Your task to perform on an android device: Open the calendar app, open the side menu, and click the "Day" option Image 0: 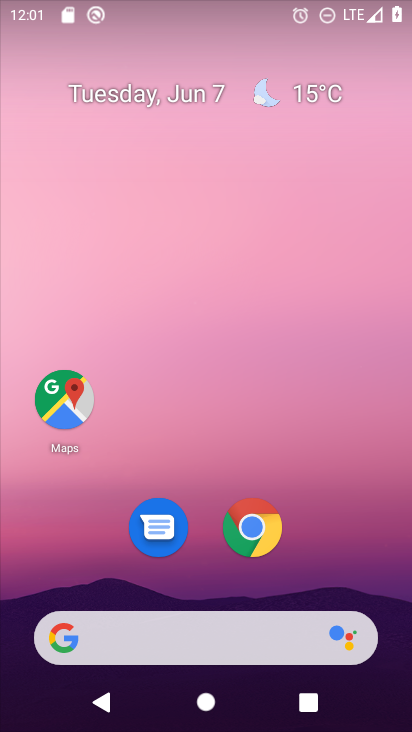
Step 0: drag from (376, 561) to (357, 132)
Your task to perform on an android device: Open the calendar app, open the side menu, and click the "Day" option Image 1: 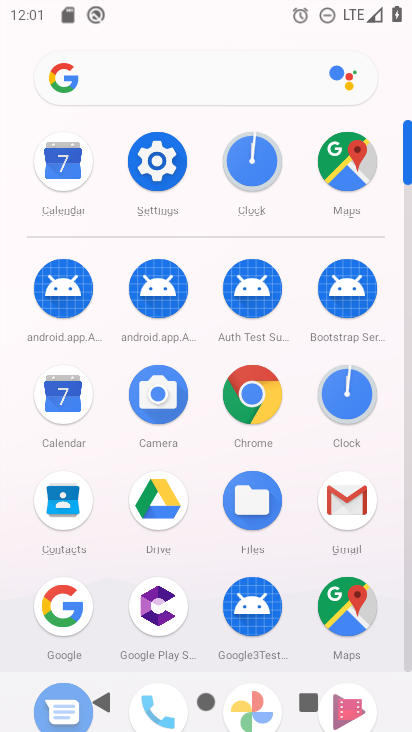
Step 1: click (73, 402)
Your task to perform on an android device: Open the calendar app, open the side menu, and click the "Day" option Image 2: 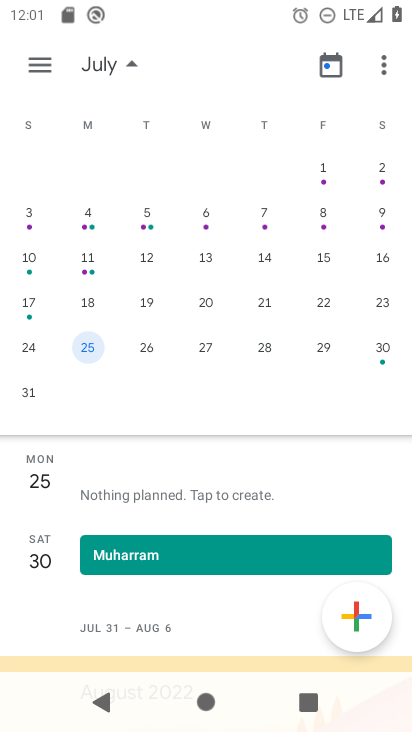
Step 2: click (51, 63)
Your task to perform on an android device: Open the calendar app, open the side menu, and click the "Day" option Image 3: 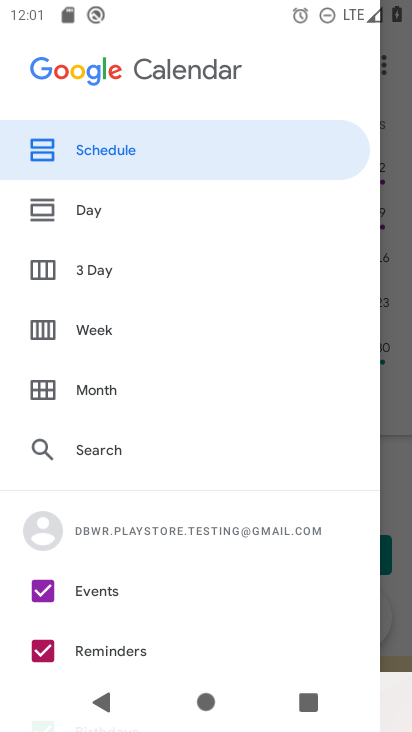
Step 3: click (121, 208)
Your task to perform on an android device: Open the calendar app, open the side menu, and click the "Day" option Image 4: 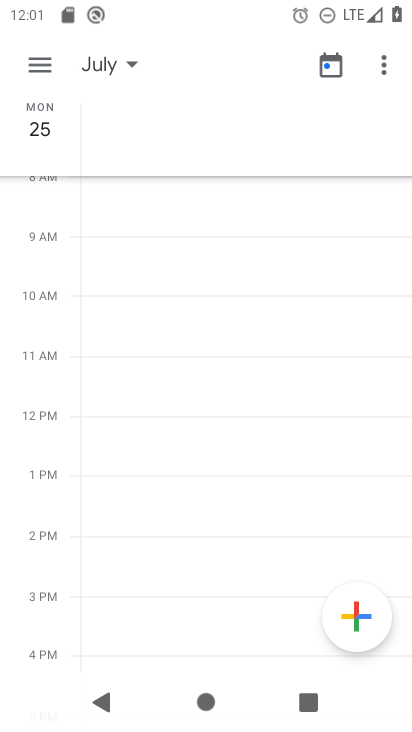
Step 4: task complete